Your task to perform on an android device: Turn off the flashlight Image 0: 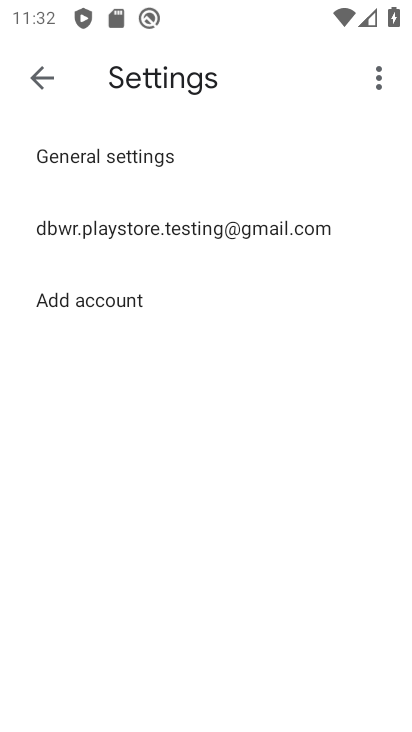
Step 0: press home button
Your task to perform on an android device: Turn off the flashlight Image 1: 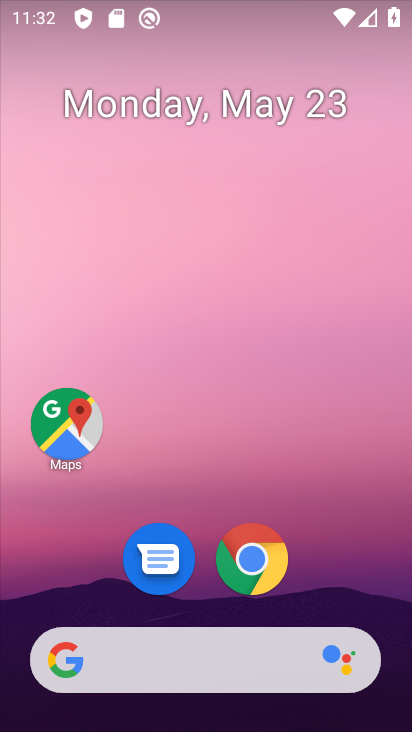
Step 1: drag from (386, 651) to (393, 163)
Your task to perform on an android device: Turn off the flashlight Image 2: 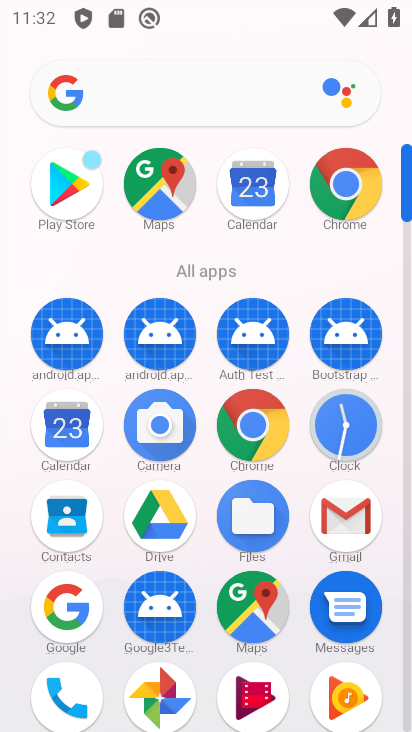
Step 2: drag from (407, 155) to (410, 35)
Your task to perform on an android device: Turn off the flashlight Image 3: 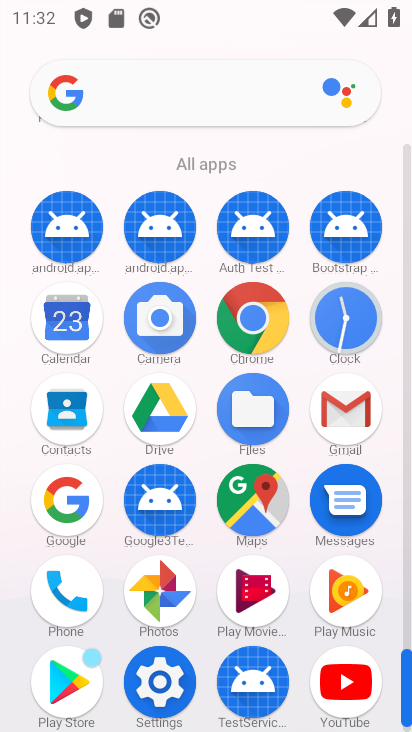
Step 3: click (179, 666)
Your task to perform on an android device: Turn off the flashlight Image 4: 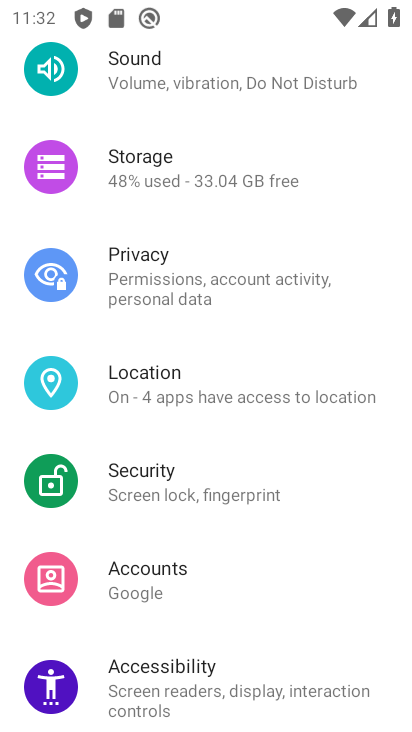
Step 4: drag from (261, 155) to (302, 519)
Your task to perform on an android device: Turn off the flashlight Image 5: 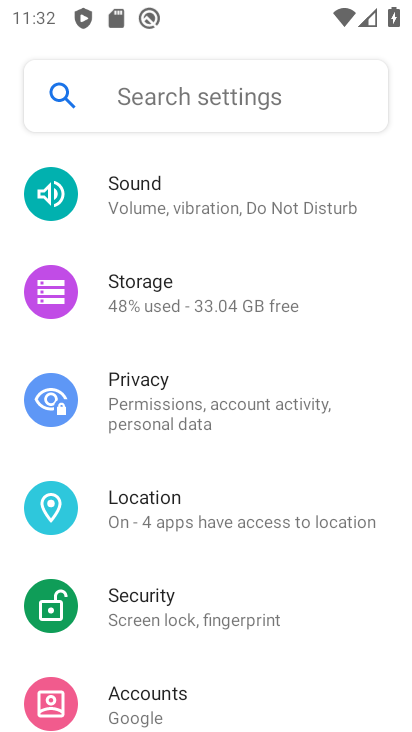
Step 5: drag from (256, 214) to (277, 612)
Your task to perform on an android device: Turn off the flashlight Image 6: 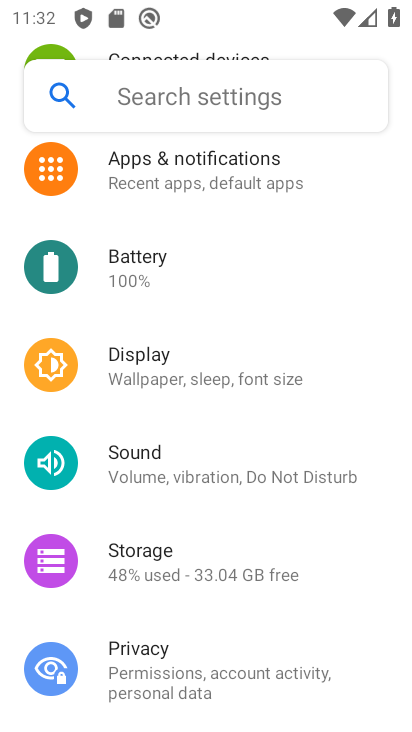
Step 6: click (129, 358)
Your task to perform on an android device: Turn off the flashlight Image 7: 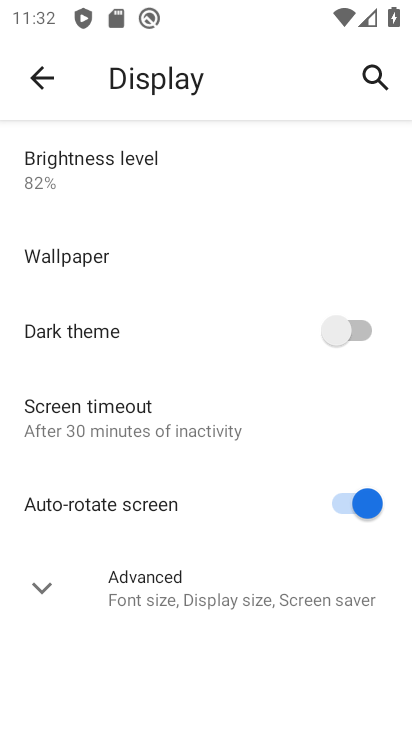
Step 7: task complete